Your task to perform on an android device: What's the weather today? Image 0: 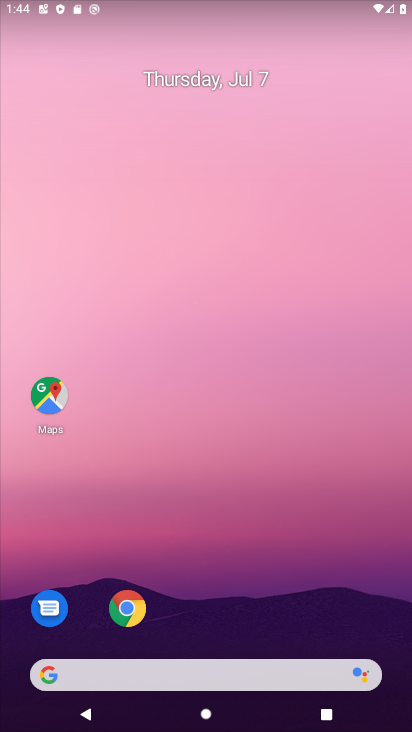
Step 0: drag from (309, 647) to (363, 2)
Your task to perform on an android device: What's the weather today? Image 1: 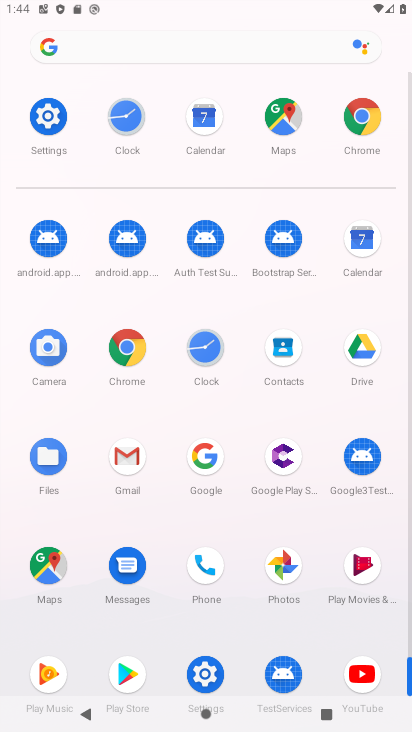
Step 1: click (198, 457)
Your task to perform on an android device: What's the weather today? Image 2: 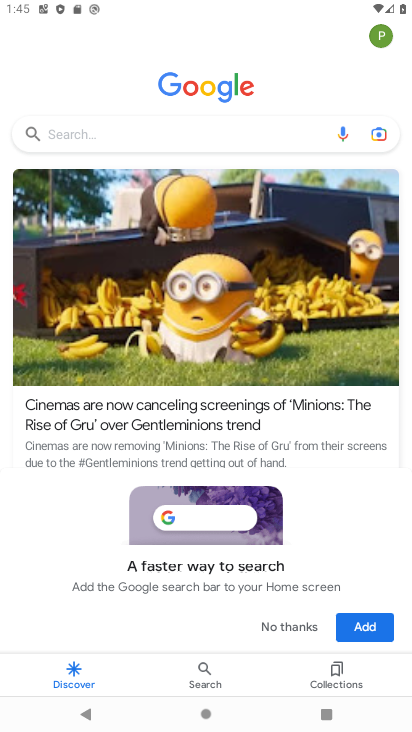
Step 2: click (136, 137)
Your task to perform on an android device: What's the weather today? Image 3: 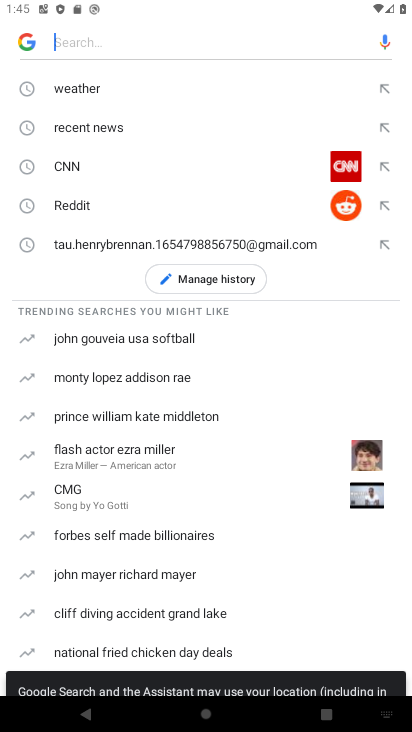
Step 3: click (103, 92)
Your task to perform on an android device: What's the weather today? Image 4: 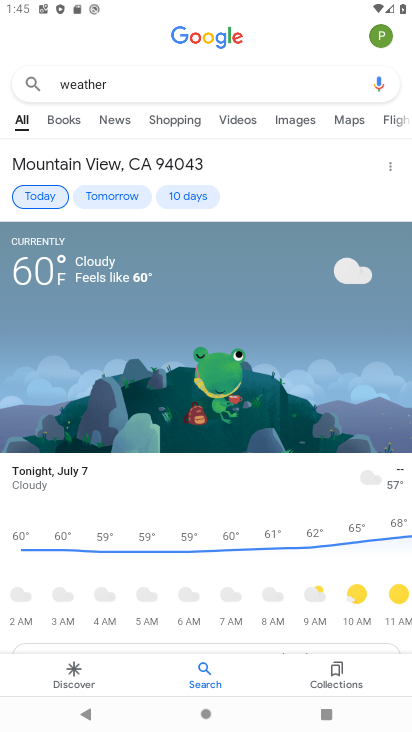
Step 4: task complete